Your task to perform on an android device: Open CNN.com Image 0: 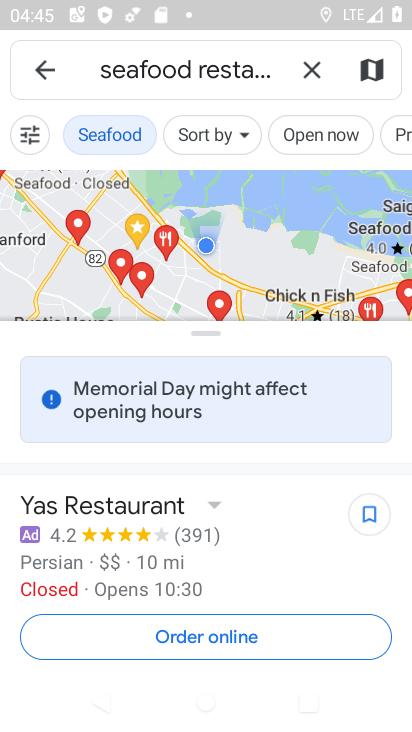
Step 0: press home button
Your task to perform on an android device: Open CNN.com Image 1: 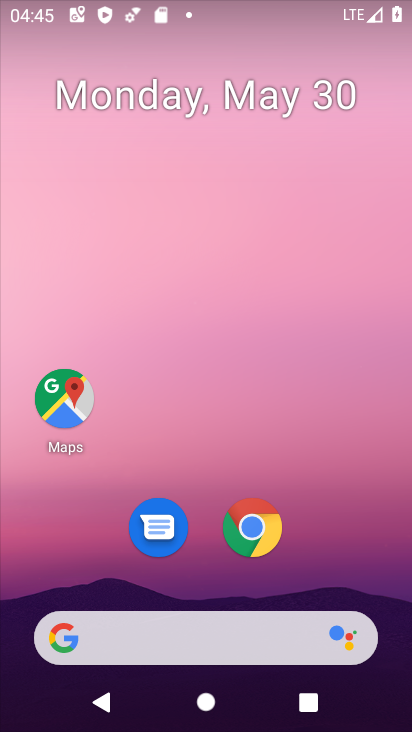
Step 1: click (248, 524)
Your task to perform on an android device: Open CNN.com Image 2: 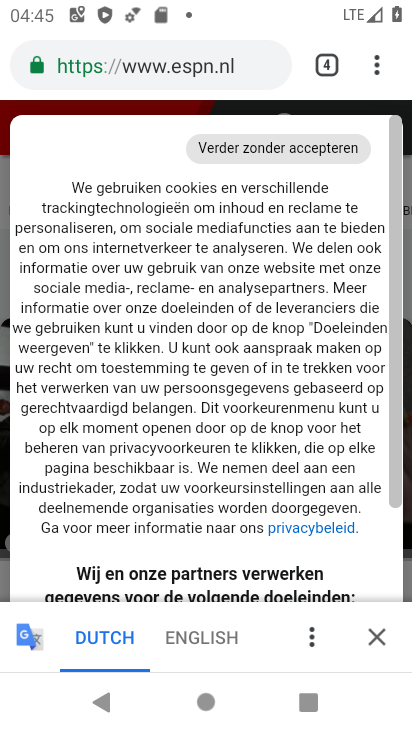
Step 2: click (376, 71)
Your task to perform on an android device: Open CNN.com Image 3: 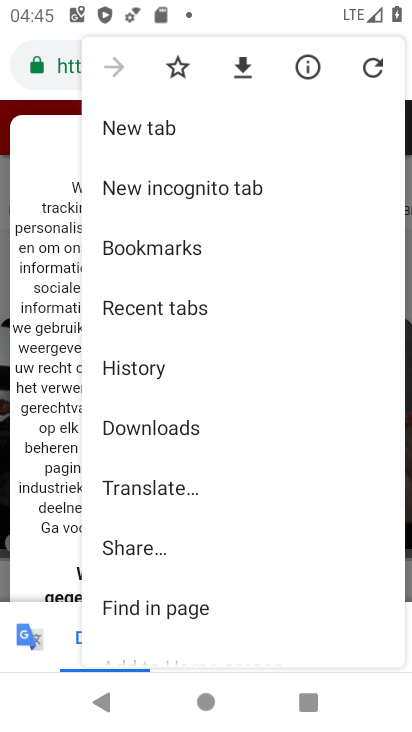
Step 3: click (147, 126)
Your task to perform on an android device: Open CNN.com Image 4: 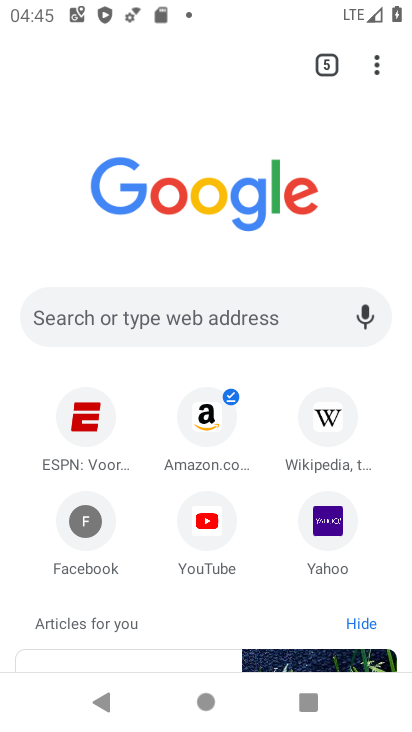
Step 4: click (219, 311)
Your task to perform on an android device: Open CNN.com Image 5: 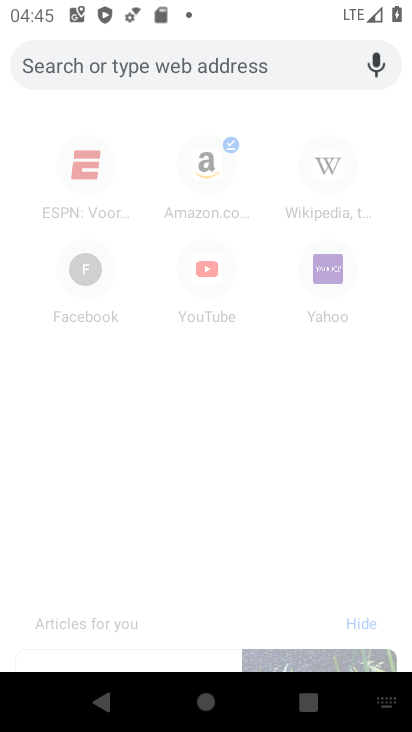
Step 5: type "CNN.com"
Your task to perform on an android device: Open CNN.com Image 6: 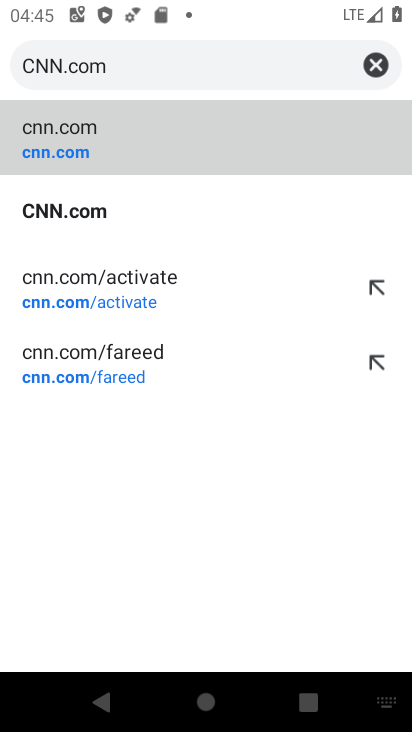
Step 6: click (67, 212)
Your task to perform on an android device: Open CNN.com Image 7: 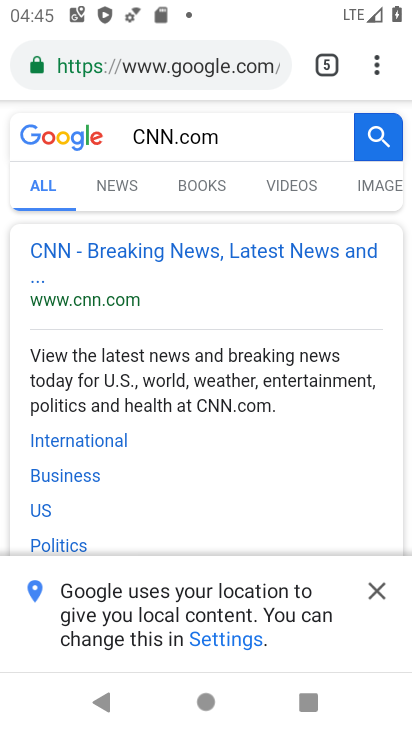
Step 7: click (132, 241)
Your task to perform on an android device: Open CNN.com Image 8: 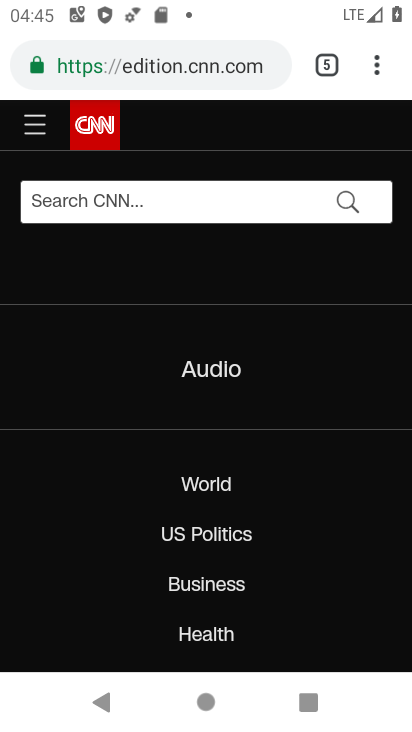
Step 8: task complete